Your task to perform on an android device: Go to Google maps Image 0: 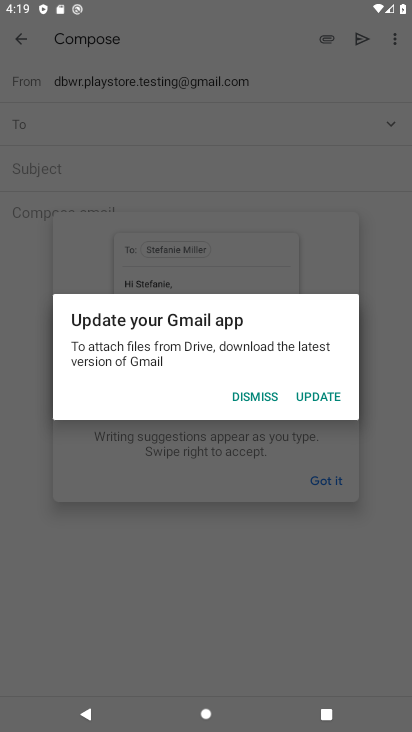
Step 0: press home button
Your task to perform on an android device: Go to Google maps Image 1: 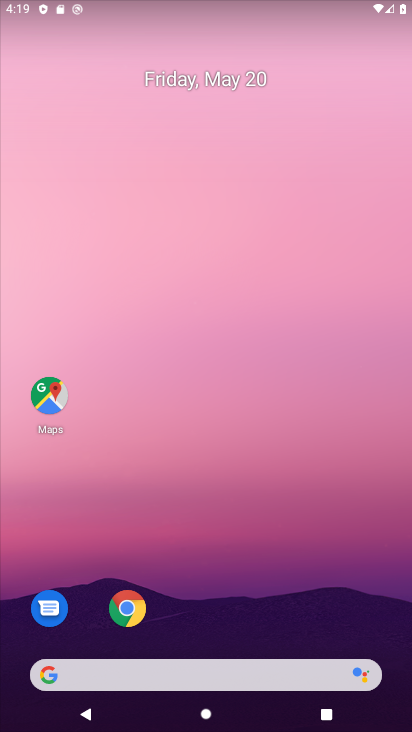
Step 1: drag from (191, 654) to (148, 147)
Your task to perform on an android device: Go to Google maps Image 2: 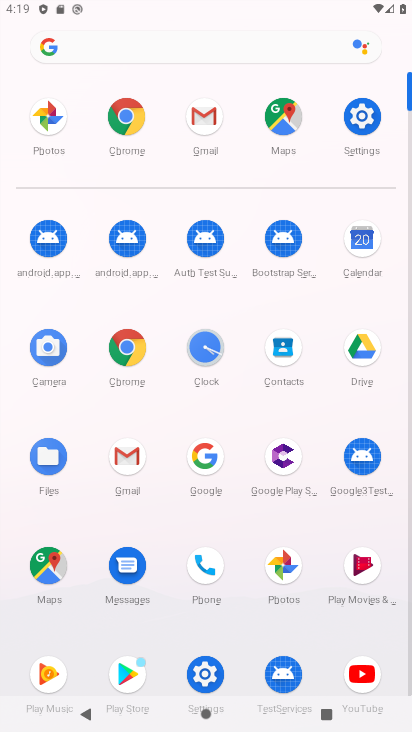
Step 2: click (48, 563)
Your task to perform on an android device: Go to Google maps Image 3: 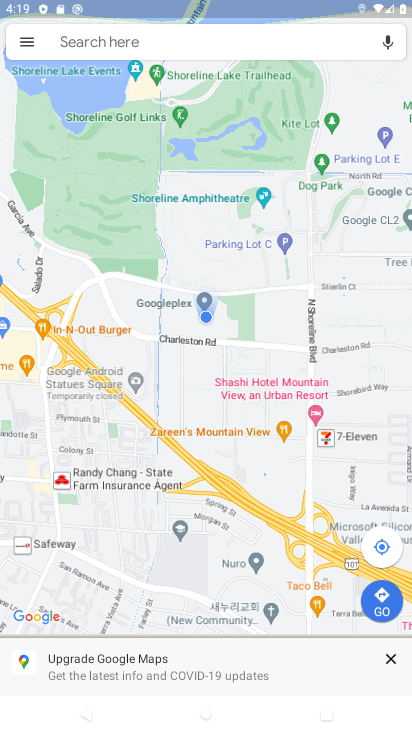
Step 3: task complete